Your task to perform on an android device: What's the weather going to be this weekend? Image 0: 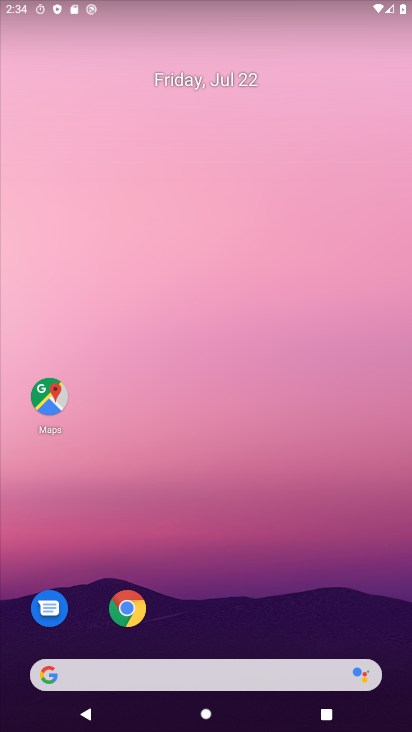
Step 0: drag from (151, 654) to (172, 174)
Your task to perform on an android device: What's the weather going to be this weekend? Image 1: 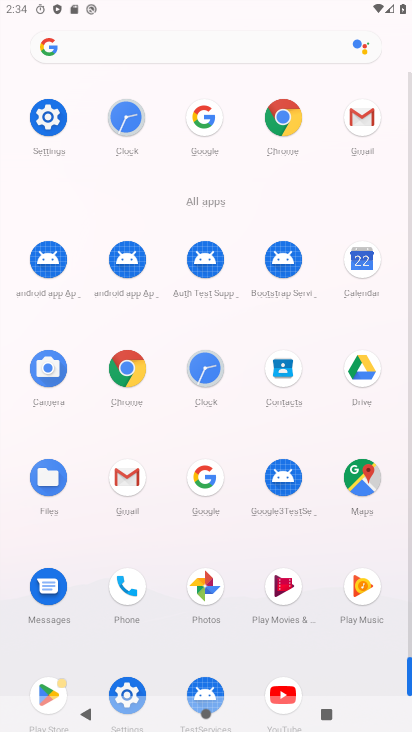
Step 1: click (197, 482)
Your task to perform on an android device: What's the weather going to be this weekend? Image 2: 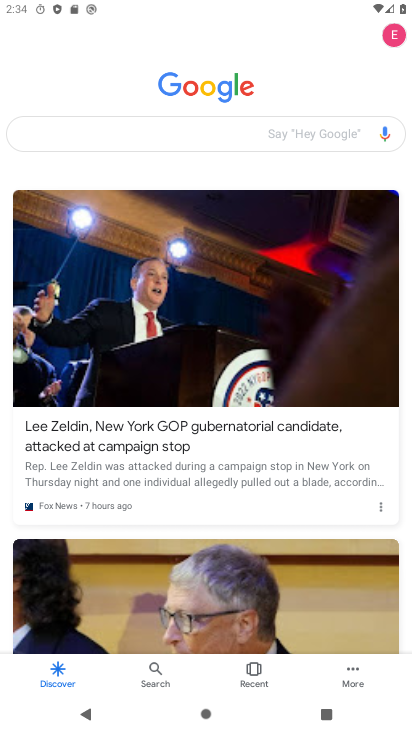
Step 2: click (85, 136)
Your task to perform on an android device: What's the weather going to be this weekend? Image 3: 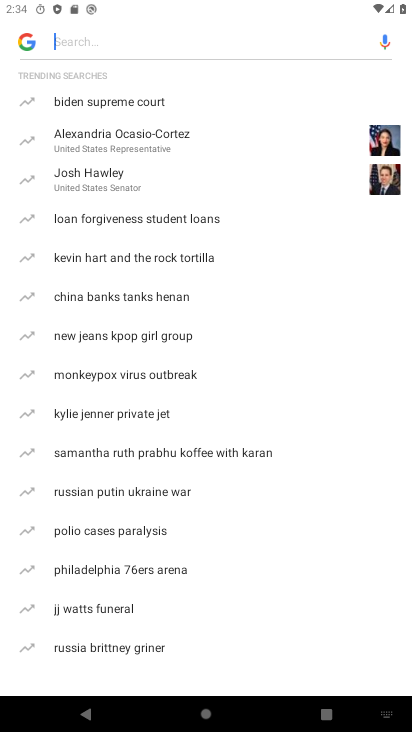
Step 3: click (111, 35)
Your task to perform on an android device: What's the weather going to be this weekend? Image 4: 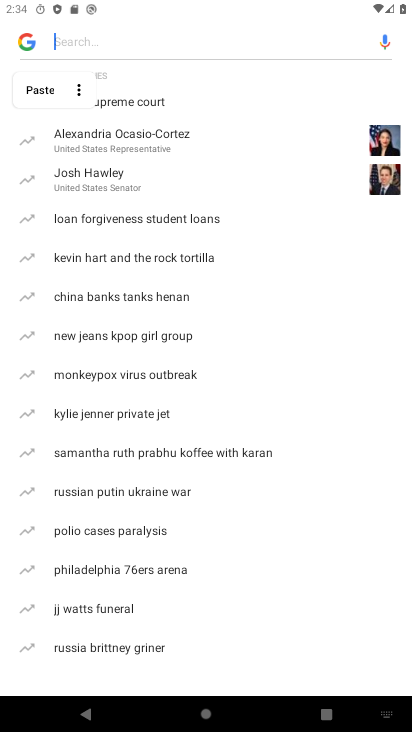
Step 4: type "What's the weather going to be this weekend?"
Your task to perform on an android device: What's the weather going to be this weekend? Image 5: 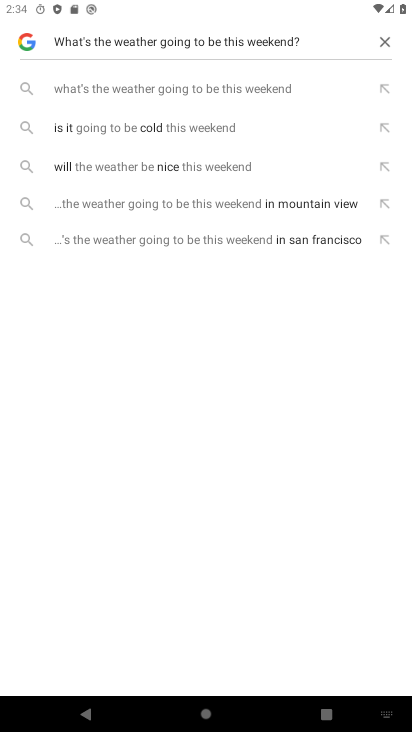
Step 5: click (114, 92)
Your task to perform on an android device: What's the weather going to be this weekend? Image 6: 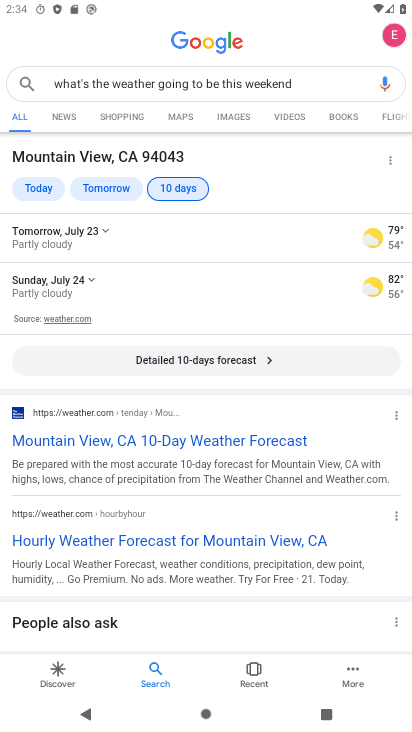
Step 6: click (187, 366)
Your task to perform on an android device: What's the weather going to be this weekend? Image 7: 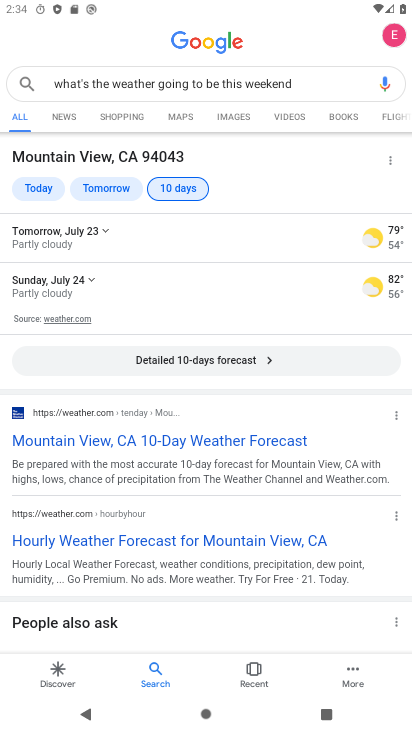
Step 7: click (185, 356)
Your task to perform on an android device: What's the weather going to be this weekend? Image 8: 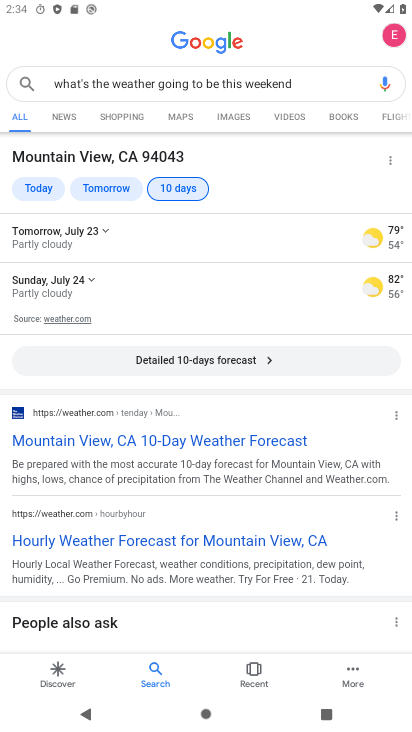
Step 8: click (189, 363)
Your task to perform on an android device: What's the weather going to be this weekend? Image 9: 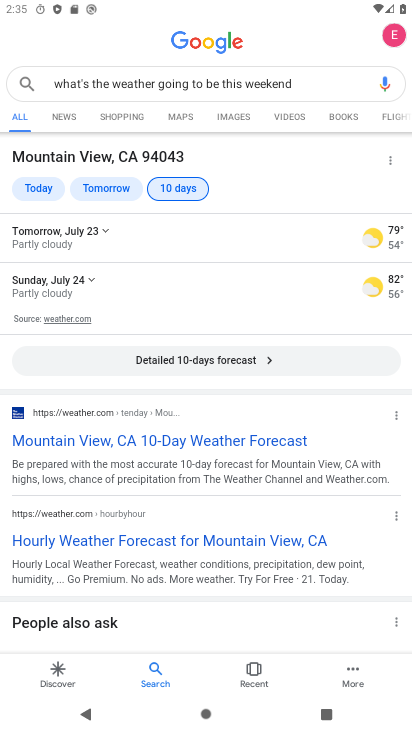
Step 9: click (206, 363)
Your task to perform on an android device: What's the weather going to be this weekend? Image 10: 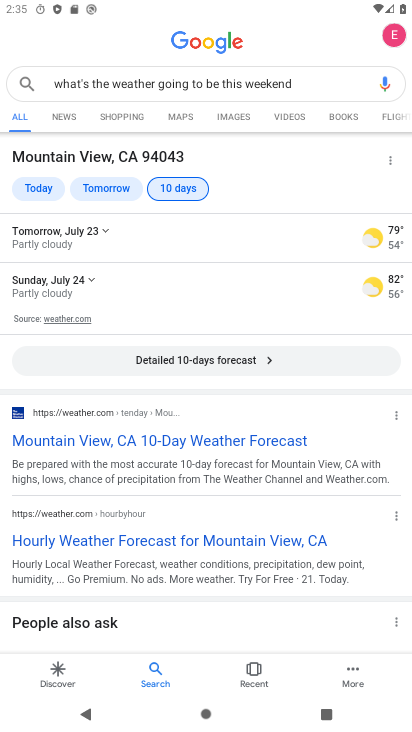
Step 10: click (209, 359)
Your task to perform on an android device: What's the weather going to be this weekend? Image 11: 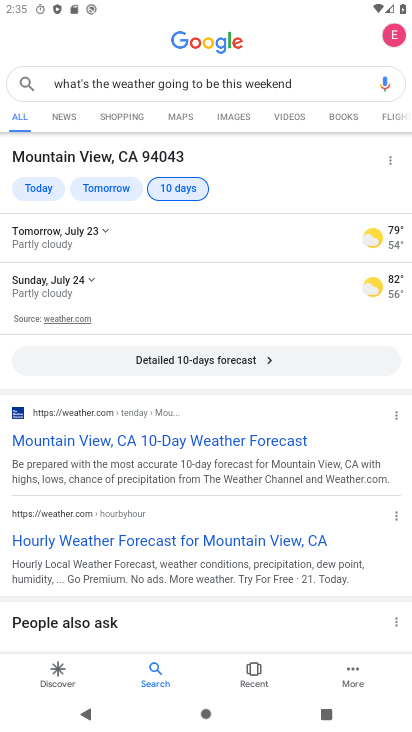
Step 11: click (235, 356)
Your task to perform on an android device: What's the weather going to be this weekend? Image 12: 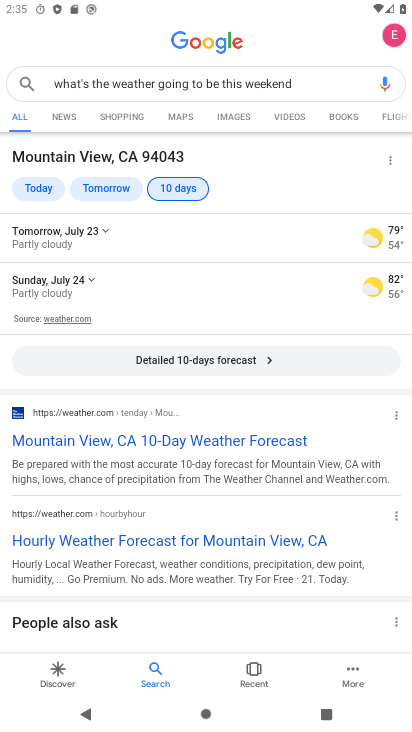
Step 12: task complete